Your task to perform on an android device: Show me productivity apps on the Play Store Image 0: 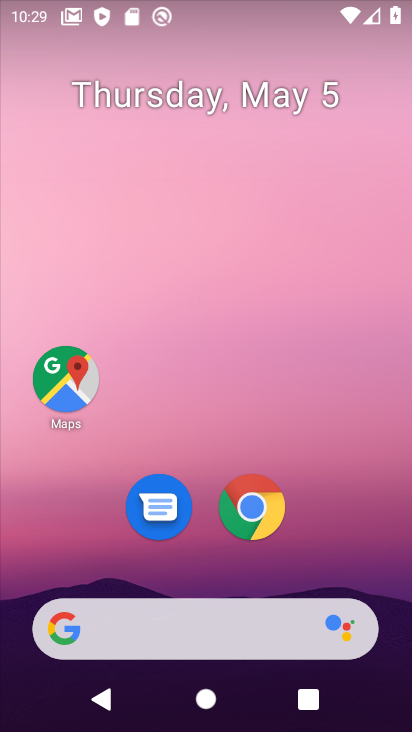
Step 0: drag from (365, 546) to (382, 33)
Your task to perform on an android device: Show me productivity apps on the Play Store Image 1: 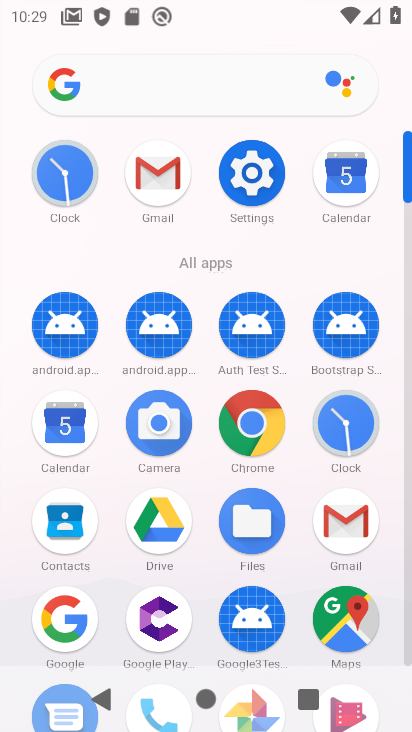
Step 1: click (406, 594)
Your task to perform on an android device: Show me productivity apps on the Play Store Image 2: 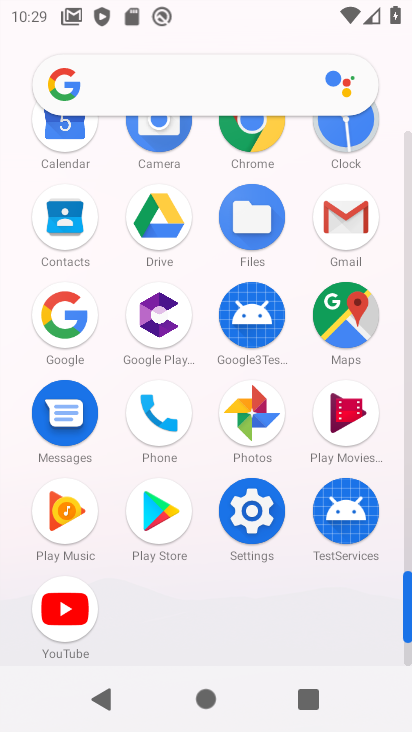
Step 2: click (162, 521)
Your task to perform on an android device: Show me productivity apps on the Play Store Image 3: 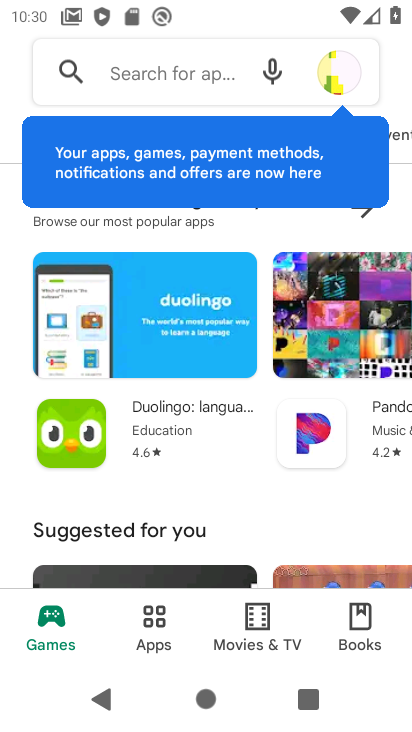
Step 3: click (142, 630)
Your task to perform on an android device: Show me productivity apps on the Play Store Image 4: 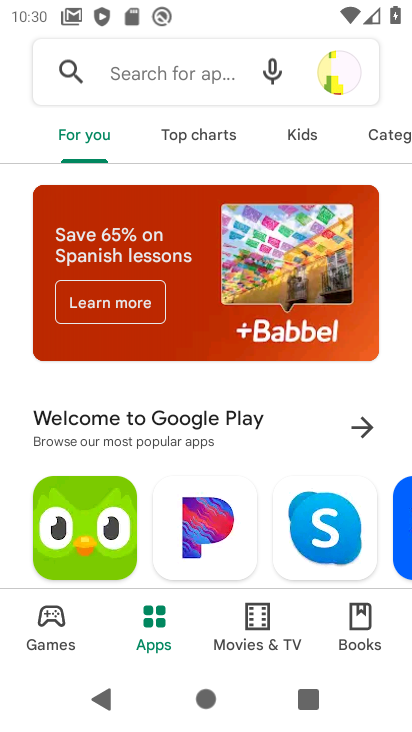
Step 4: click (381, 135)
Your task to perform on an android device: Show me productivity apps on the Play Store Image 5: 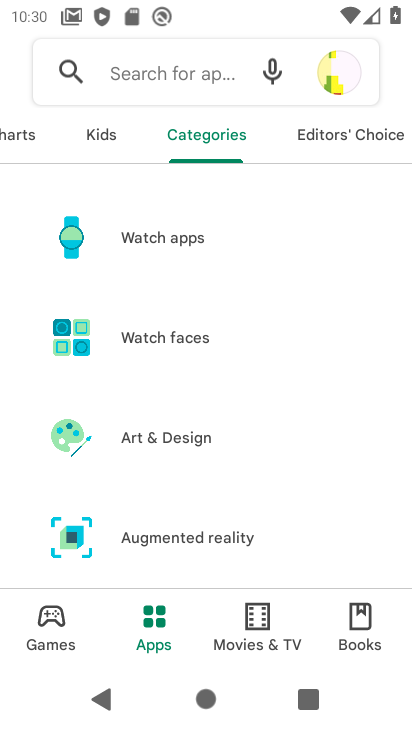
Step 5: drag from (266, 517) to (264, 161)
Your task to perform on an android device: Show me productivity apps on the Play Store Image 6: 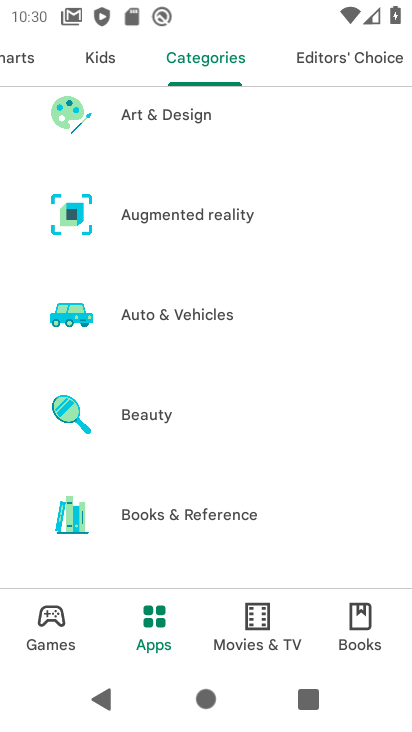
Step 6: drag from (277, 441) to (272, 107)
Your task to perform on an android device: Show me productivity apps on the Play Store Image 7: 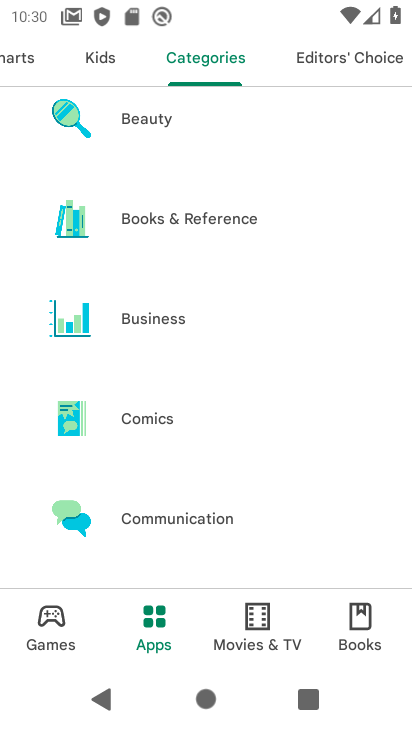
Step 7: drag from (270, 440) to (260, 98)
Your task to perform on an android device: Show me productivity apps on the Play Store Image 8: 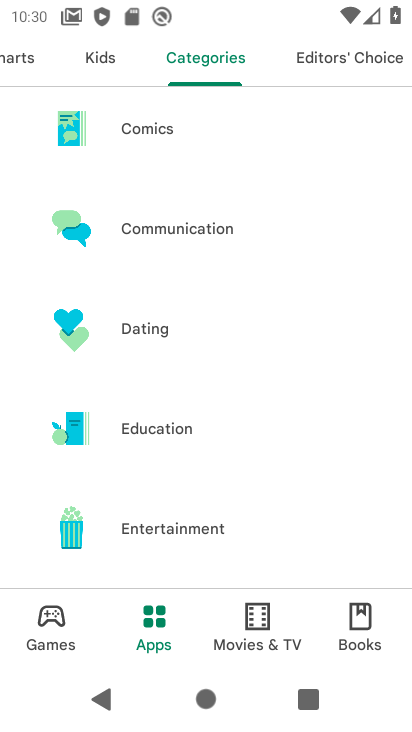
Step 8: drag from (270, 473) to (266, 117)
Your task to perform on an android device: Show me productivity apps on the Play Store Image 9: 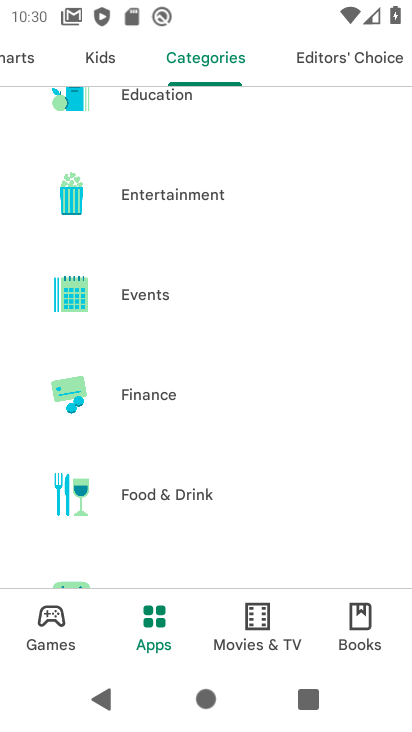
Step 9: drag from (248, 498) to (248, 143)
Your task to perform on an android device: Show me productivity apps on the Play Store Image 10: 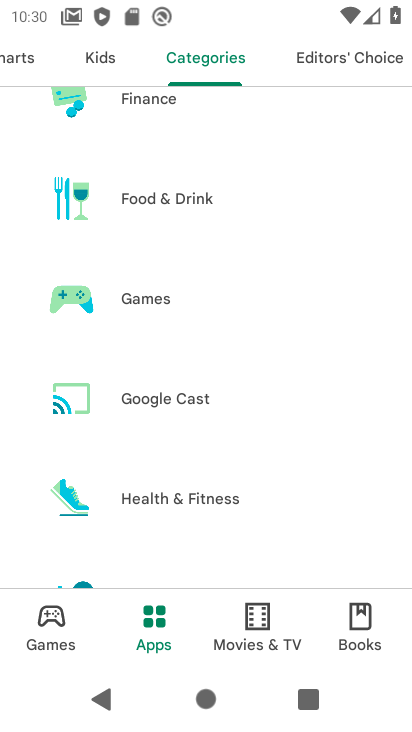
Step 10: drag from (238, 480) to (234, 143)
Your task to perform on an android device: Show me productivity apps on the Play Store Image 11: 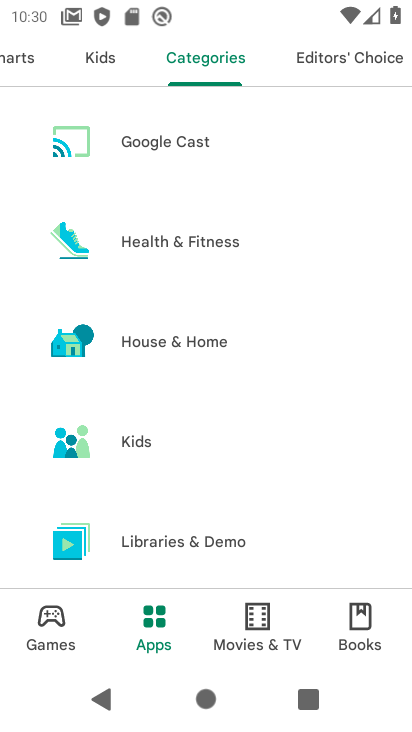
Step 11: drag from (269, 451) to (257, 138)
Your task to perform on an android device: Show me productivity apps on the Play Store Image 12: 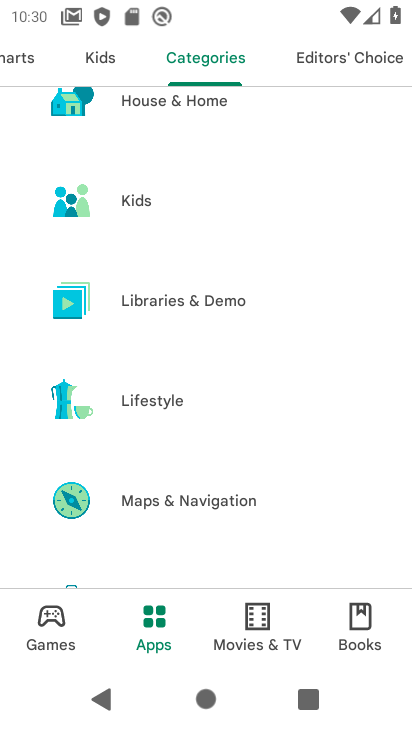
Step 12: drag from (260, 489) to (227, 111)
Your task to perform on an android device: Show me productivity apps on the Play Store Image 13: 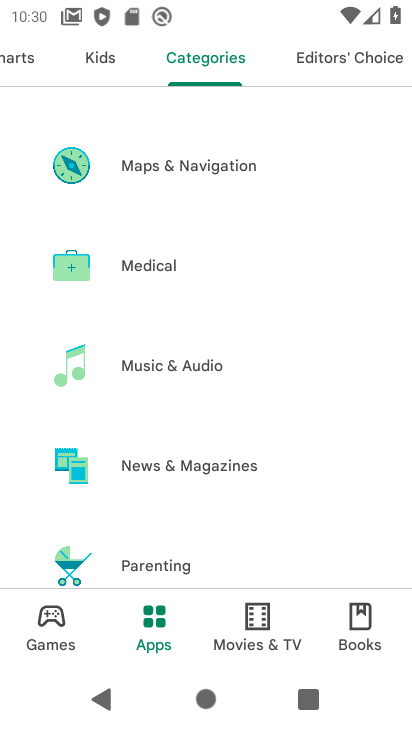
Step 13: drag from (246, 498) to (248, 187)
Your task to perform on an android device: Show me productivity apps on the Play Store Image 14: 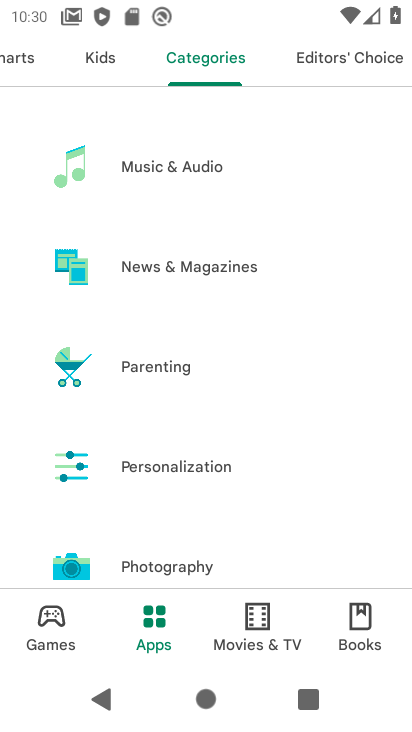
Step 14: drag from (313, 519) to (294, 214)
Your task to perform on an android device: Show me productivity apps on the Play Store Image 15: 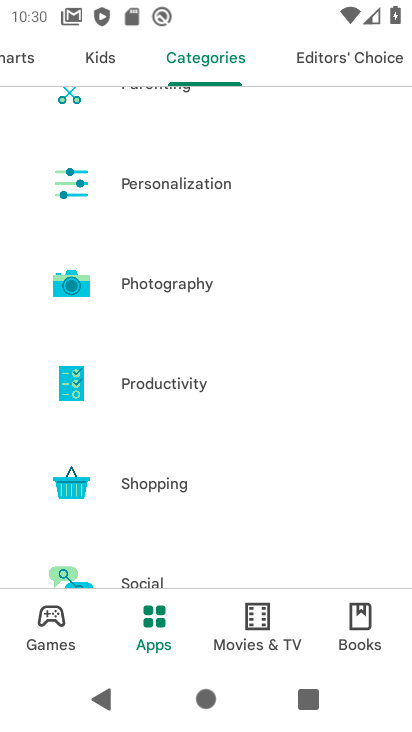
Step 15: click (162, 384)
Your task to perform on an android device: Show me productivity apps on the Play Store Image 16: 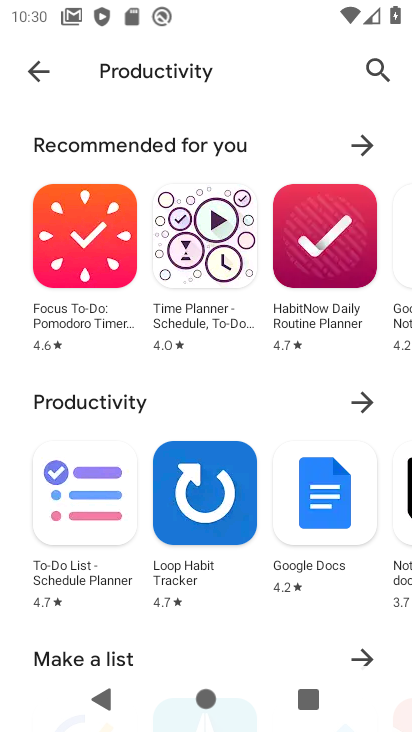
Step 16: task complete